Your task to perform on an android device: open a bookmark in the chrome app Image 0: 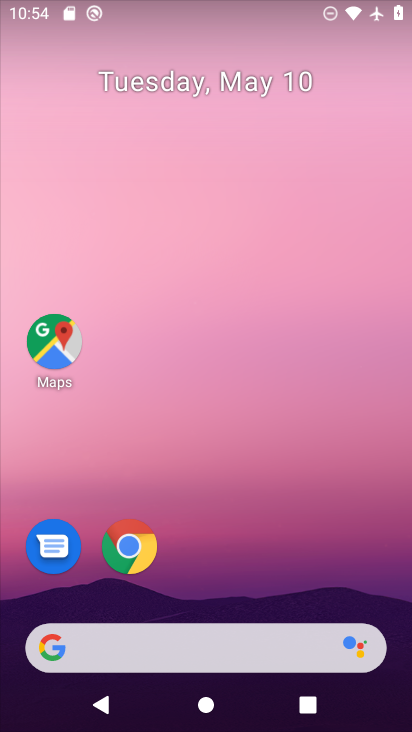
Step 0: click (141, 549)
Your task to perform on an android device: open a bookmark in the chrome app Image 1: 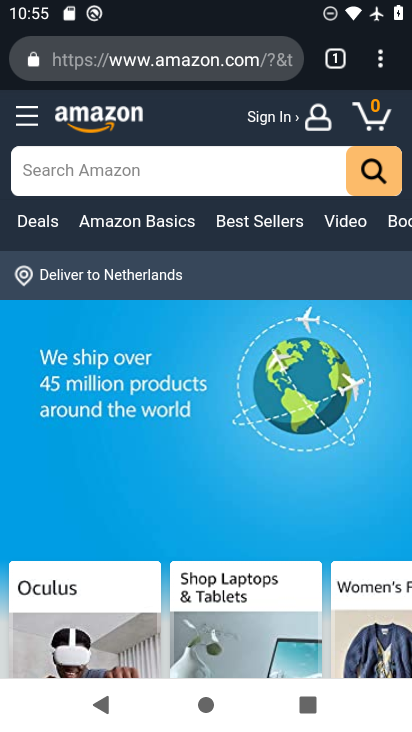
Step 1: click (383, 54)
Your task to perform on an android device: open a bookmark in the chrome app Image 2: 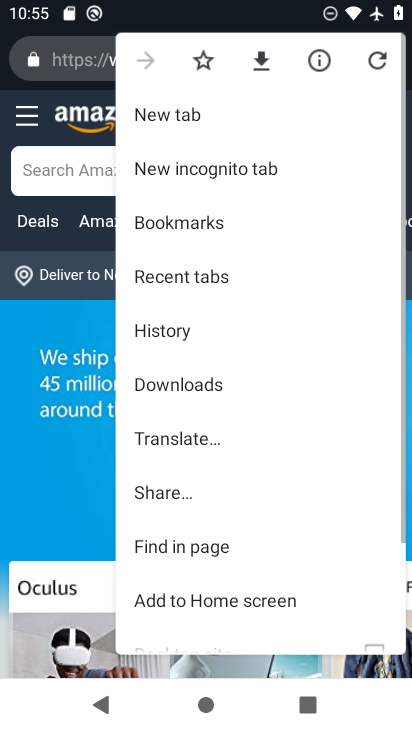
Step 2: click (233, 224)
Your task to perform on an android device: open a bookmark in the chrome app Image 3: 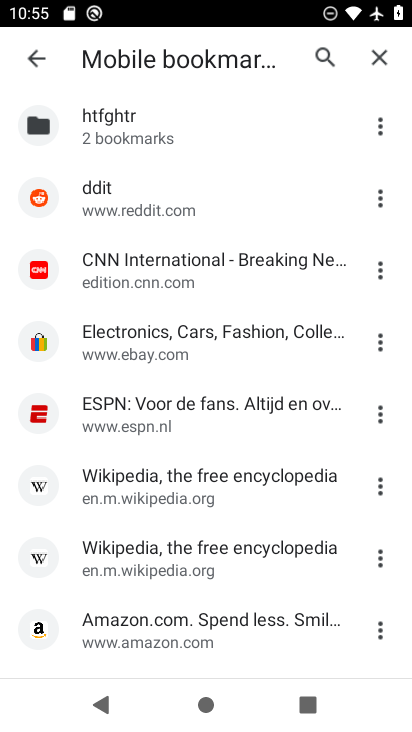
Step 3: click (172, 198)
Your task to perform on an android device: open a bookmark in the chrome app Image 4: 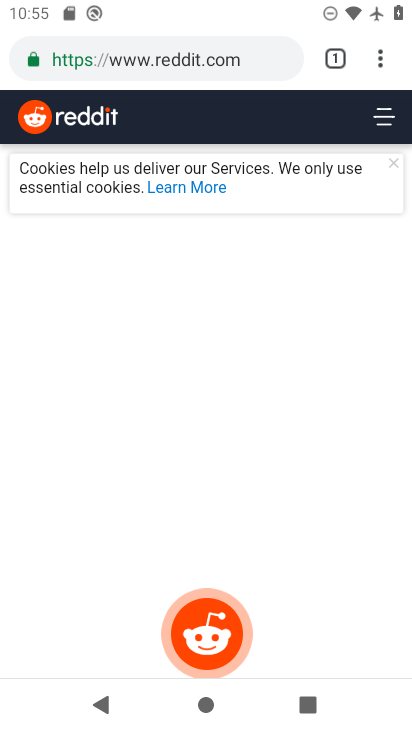
Step 4: task complete